Your task to perform on an android device: turn off sleep mode Image 0: 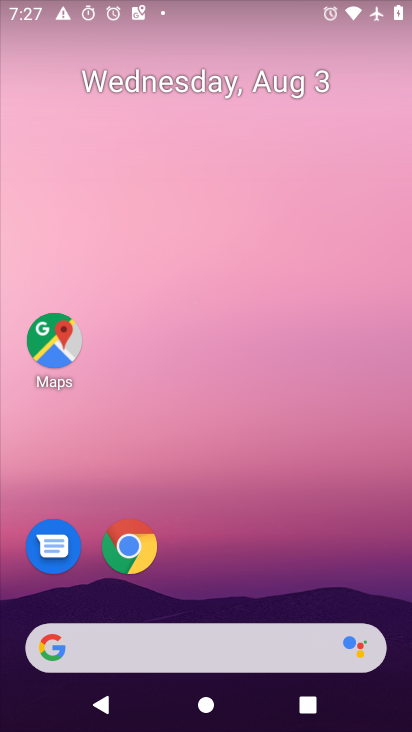
Step 0: press home button
Your task to perform on an android device: turn off sleep mode Image 1: 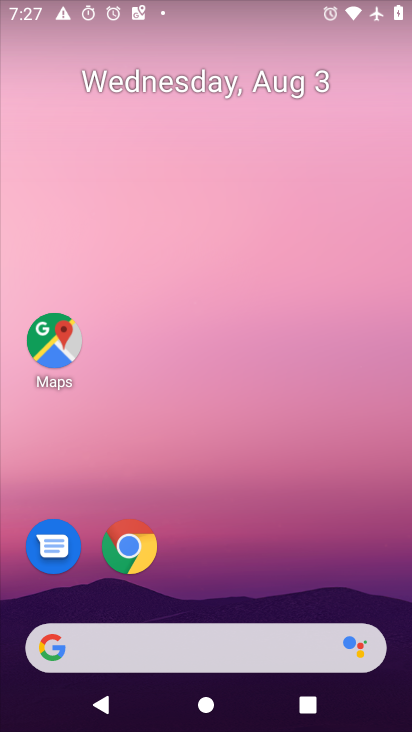
Step 1: drag from (218, 598) to (214, 169)
Your task to perform on an android device: turn off sleep mode Image 2: 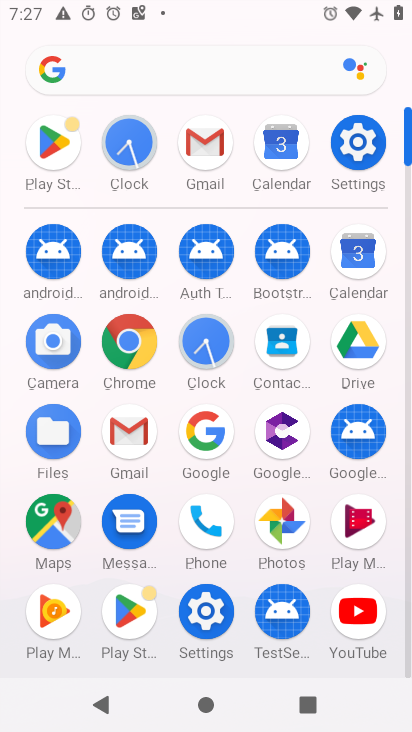
Step 2: click (352, 143)
Your task to perform on an android device: turn off sleep mode Image 3: 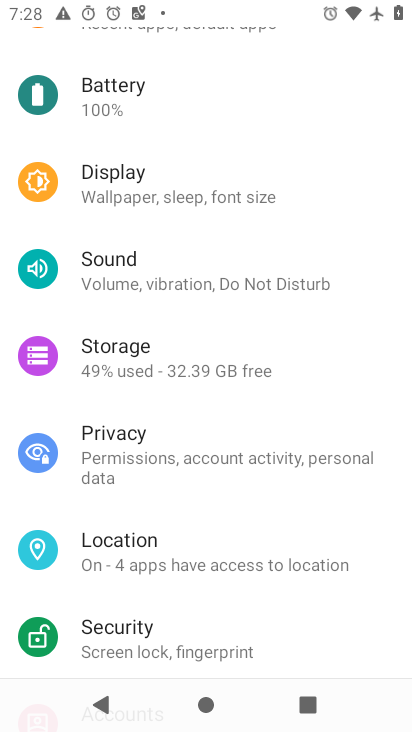
Step 3: click (113, 185)
Your task to perform on an android device: turn off sleep mode Image 4: 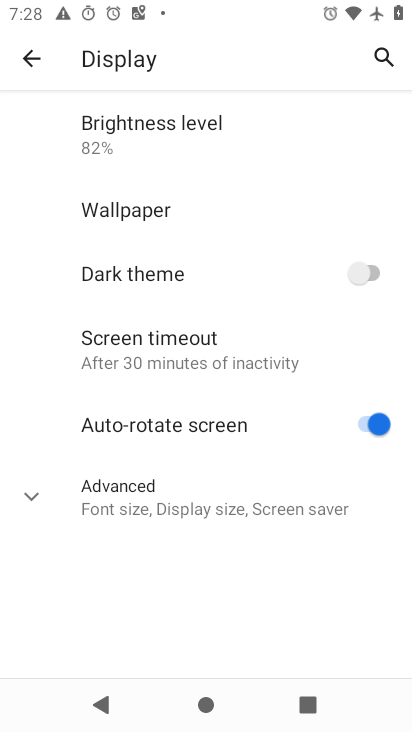
Step 4: task complete